Your task to perform on an android device: check battery use Image 0: 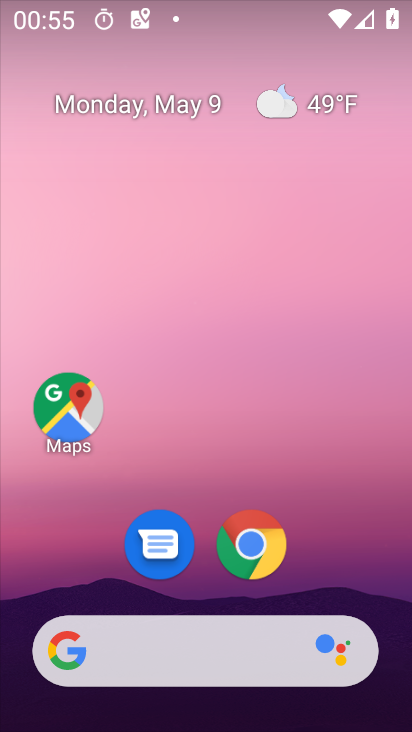
Step 0: drag from (353, 664) to (348, 2)
Your task to perform on an android device: check battery use Image 1: 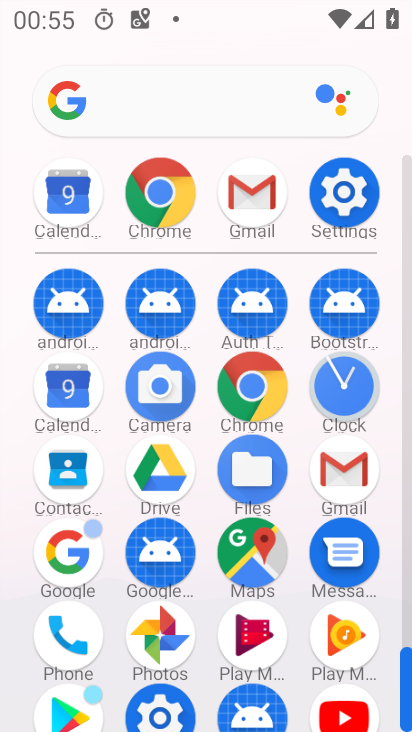
Step 1: click (345, 212)
Your task to perform on an android device: check battery use Image 2: 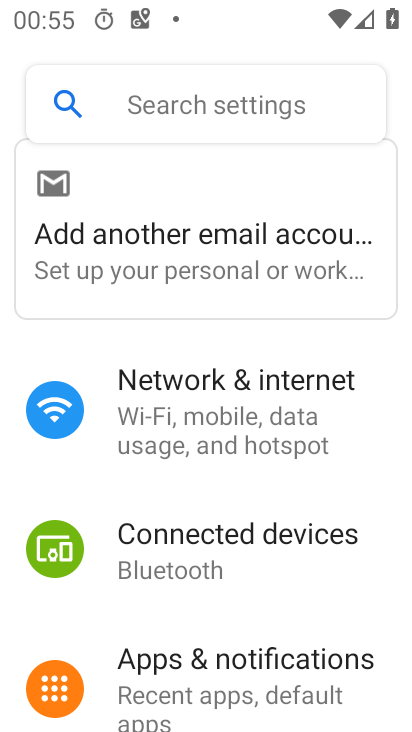
Step 2: drag from (262, 645) to (259, 148)
Your task to perform on an android device: check battery use Image 3: 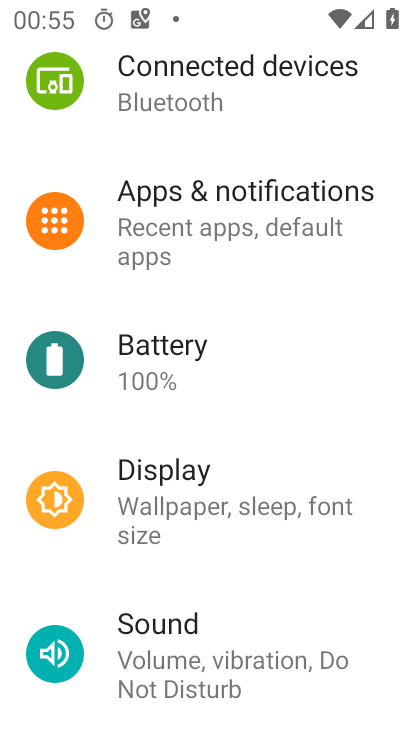
Step 3: click (218, 353)
Your task to perform on an android device: check battery use Image 4: 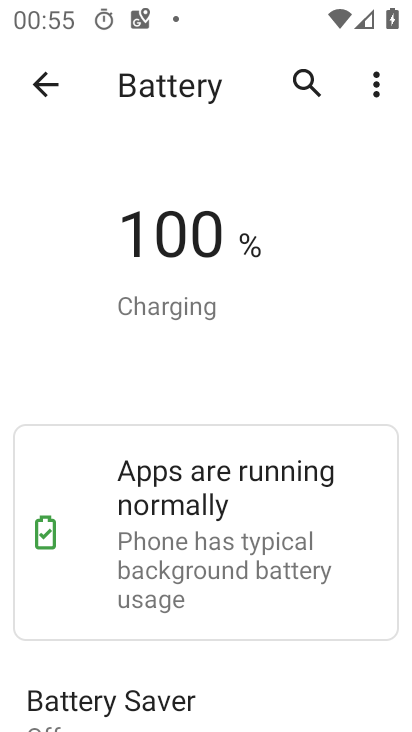
Step 4: task complete